Your task to perform on an android device: Turn on the flashlight Image 0: 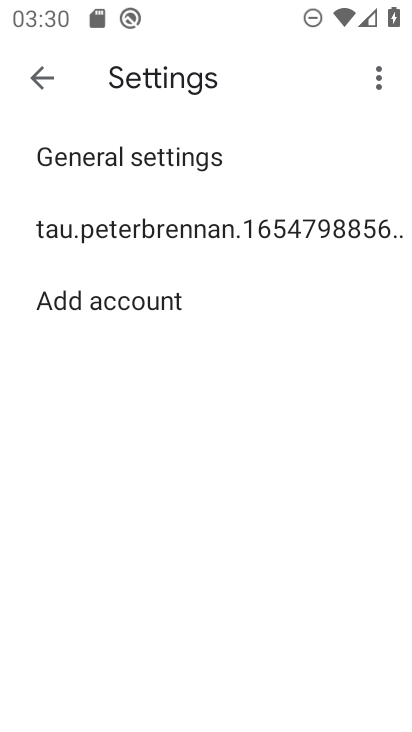
Step 0: press back button
Your task to perform on an android device: Turn on the flashlight Image 1: 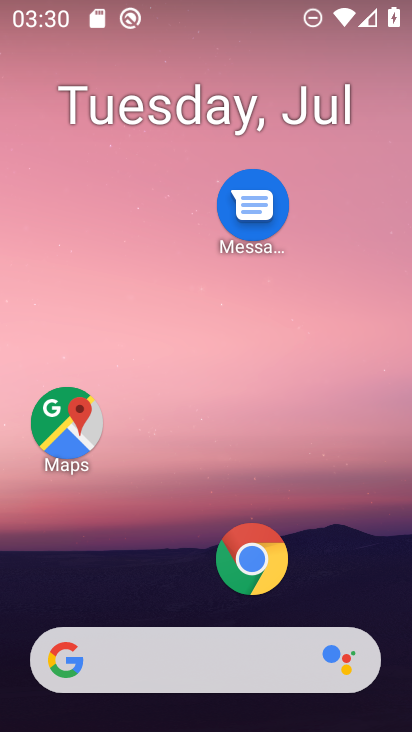
Step 1: drag from (162, 572) to (200, 145)
Your task to perform on an android device: Turn on the flashlight Image 2: 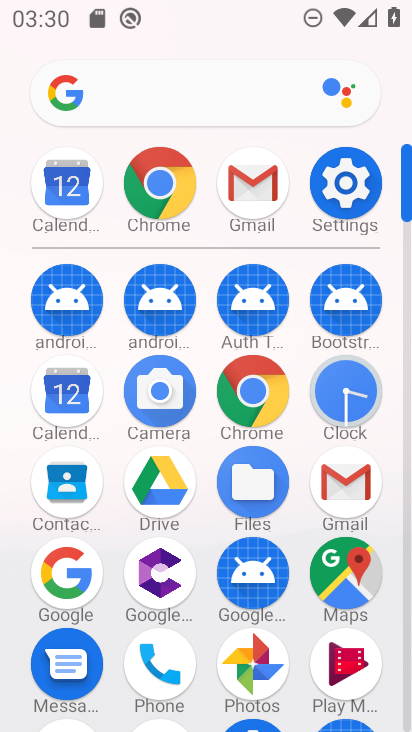
Step 2: click (374, 169)
Your task to perform on an android device: Turn on the flashlight Image 3: 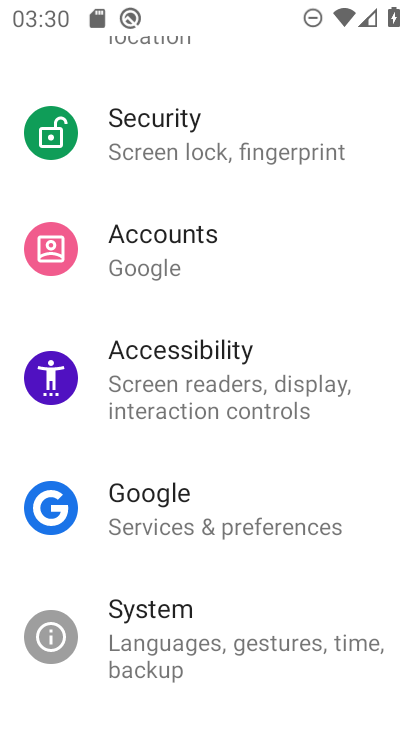
Step 3: drag from (214, 157) to (192, 718)
Your task to perform on an android device: Turn on the flashlight Image 4: 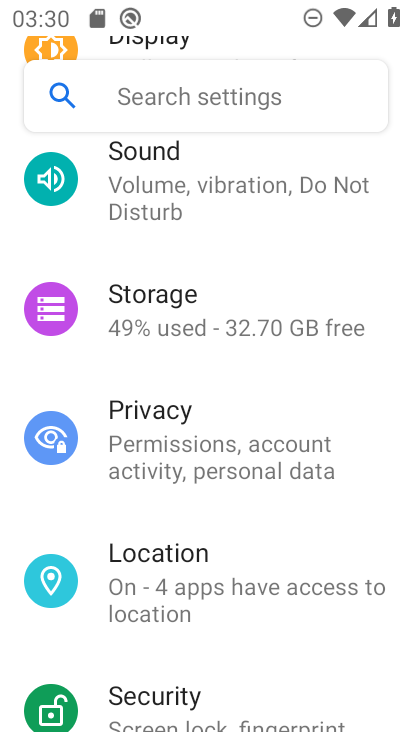
Step 4: drag from (197, 289) to (198, 696)
Your task to perform on an android device: Turn on the flashlight Image 5: 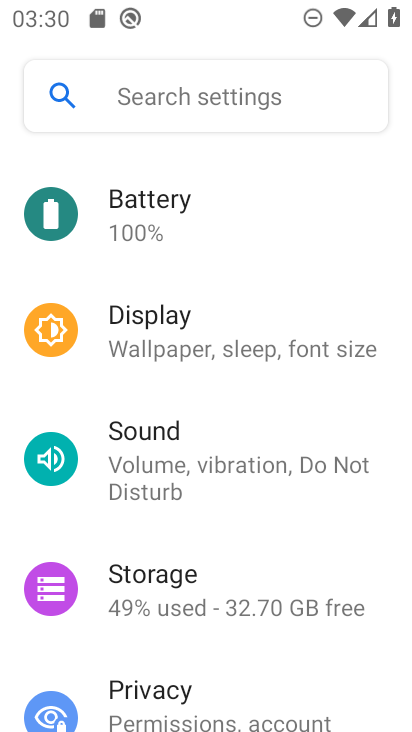
Step 5: click (150, 107)
Your task to perform on an android device: Turn on the flashlight Image 6: 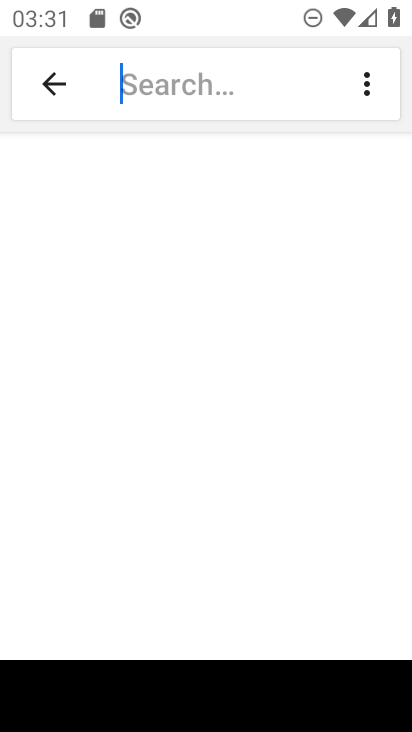
Step 6: type "flashlight"
Your task to perform on an android device: Turn on the flashlight Image 7: 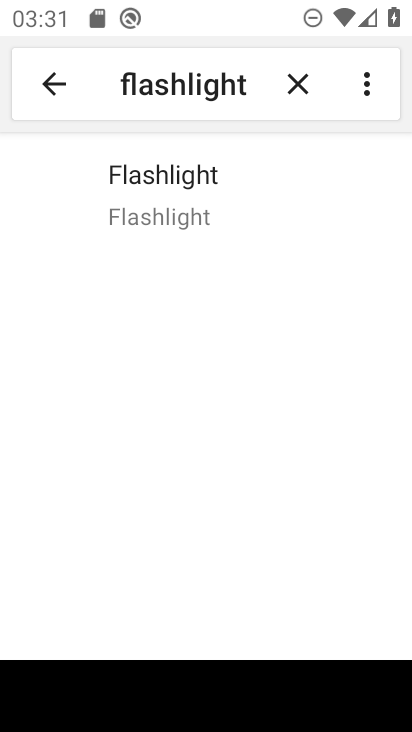
Step 7: click (242, 178)
Your task to perform on an android device: Turn on the flashlight Image 8: 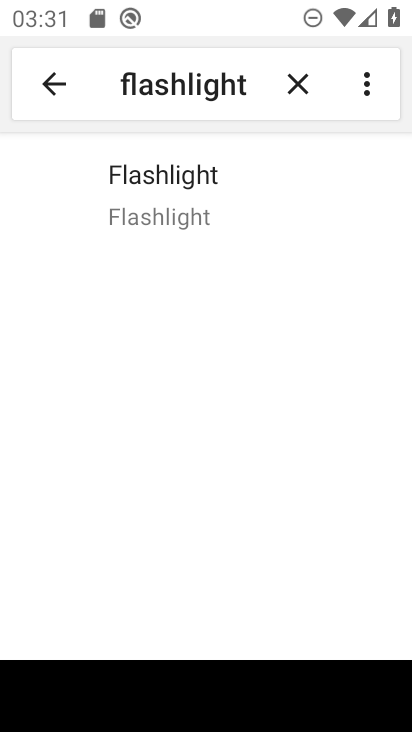
Step 8: task complete